Your task to perform on an android device: choose inbox layout in the gmail app Image 0: 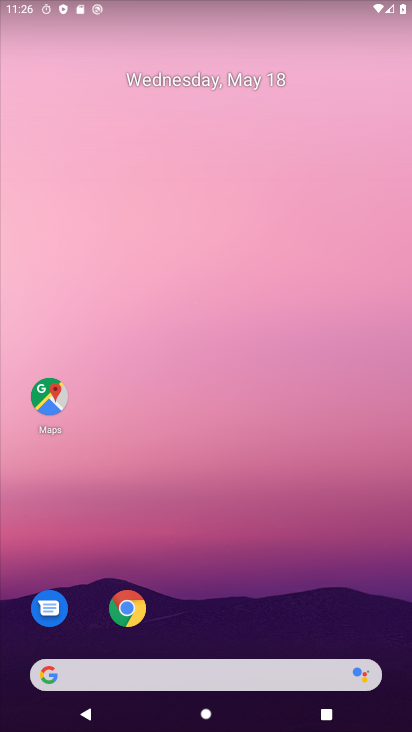
Step 0: drag from (240, 621) to (252, 114)
Your task to perform on an android device: choose inbox layout in the gmail app Image 1: 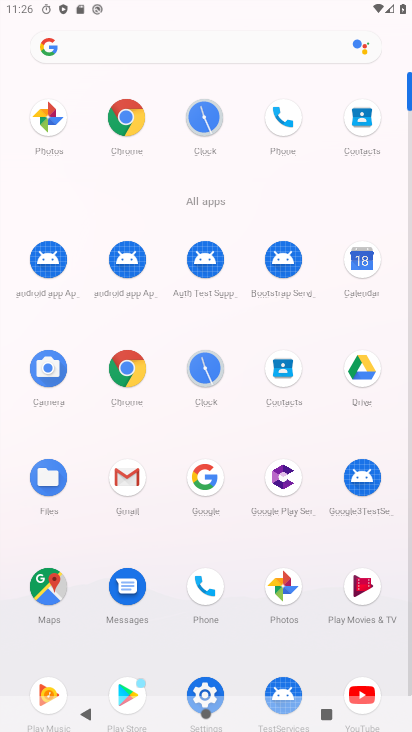
Step 1: click (128, 470)
Your task to perform on an android device: choose inbox layout in the gmail app Image 2: 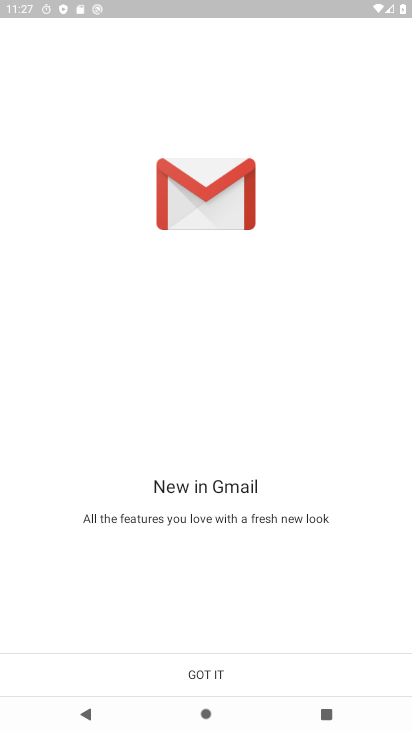
Step 2: click (218, 674)
Your task to perform on an android device: choose inbox layout in the gmail app Image 3: 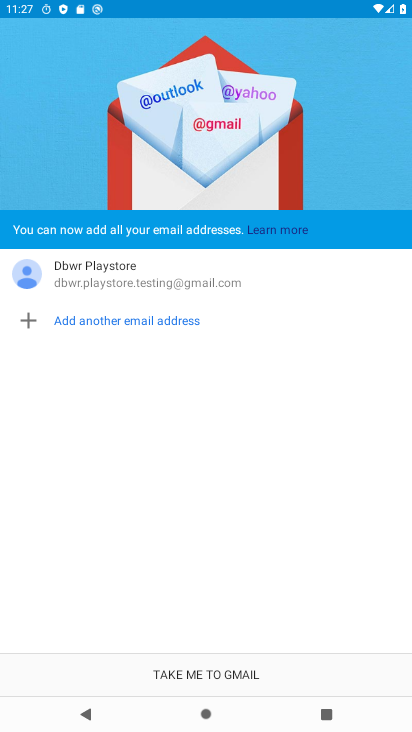
Step 3: click (218, 674)
Your task to perform on an android device: choose inbox layout in the gmail app Image 4: 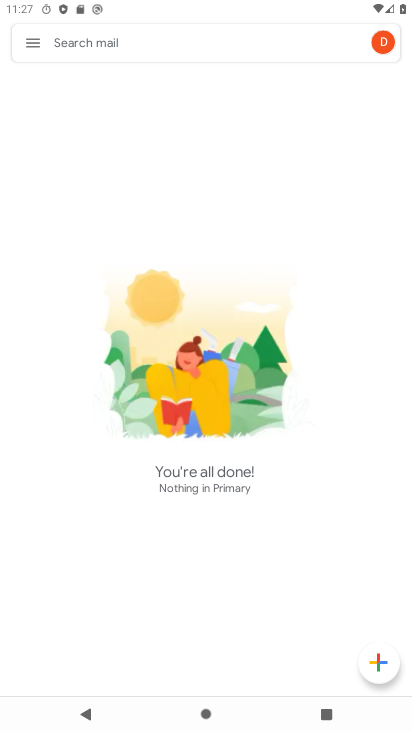
Step 4: click (31, 45)
Your task to perform on an android device: choose inbox layout in the gmail app Image 5: 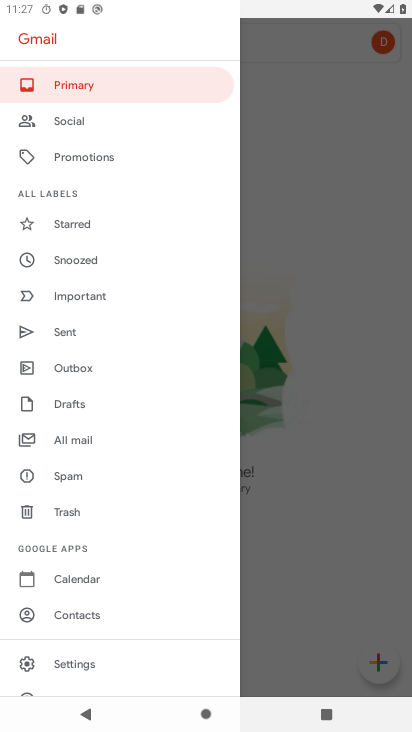
Step 5: drag from (147, 636) to (136, 192)
Your task to perform on an android device: choose inbox layout in the gmail app Image 6: 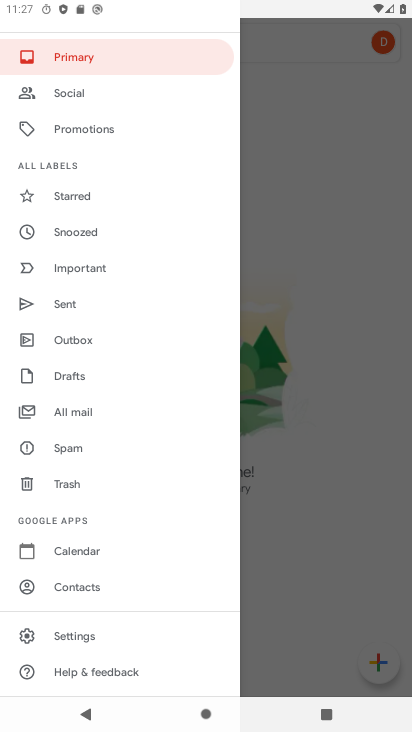
Step 6: click (128, 645)
Your task to perform on an android device: choose inbox layout in the gmail app Image 7: 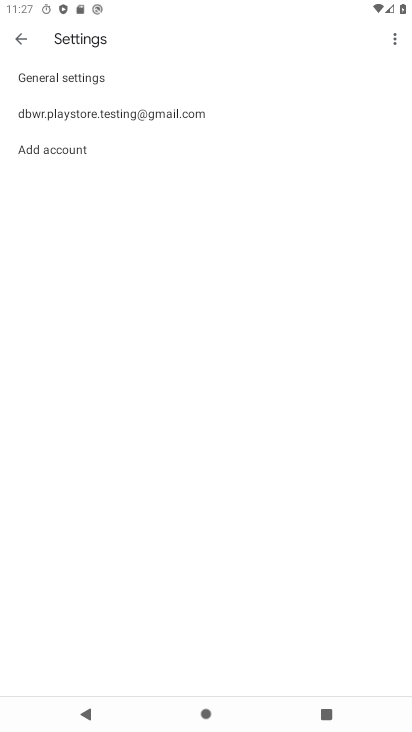
Step 7: click (240, 114)
Your task to perform on an android device: choose inbox layout in the gmail app Image 8: 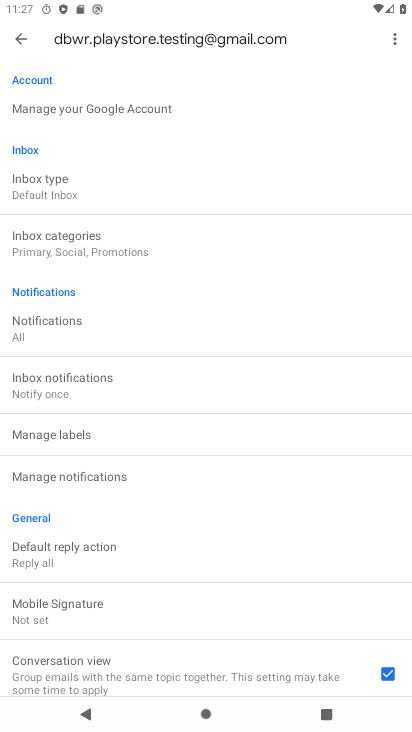
Step 8: click (172, 187)
Your task to perform on an android device: choose inbox layout in the gmail app Image 9: 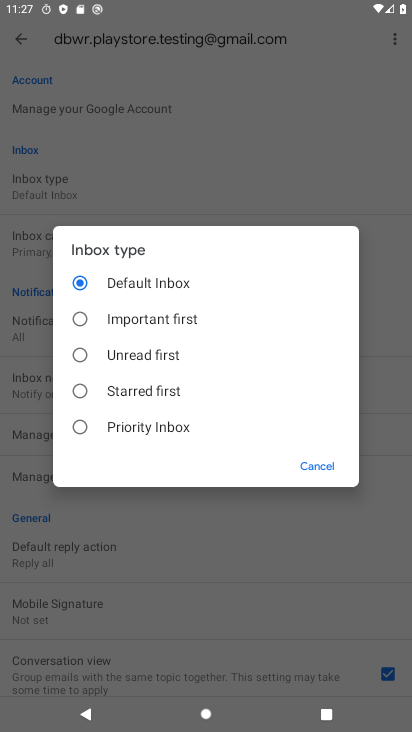
Step 9: click (125, 323)
Your task to perform on an android device: choose inbox layout in the gmail app Image 10: 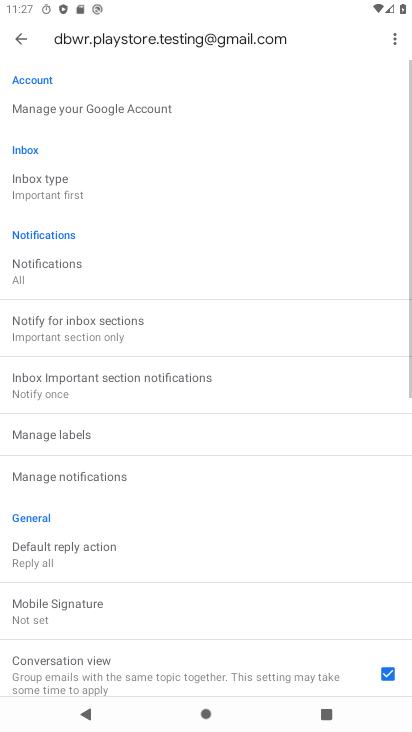
Step 10: task complete